Your task to perform on an android device: clear history in the chrome app Image 0: 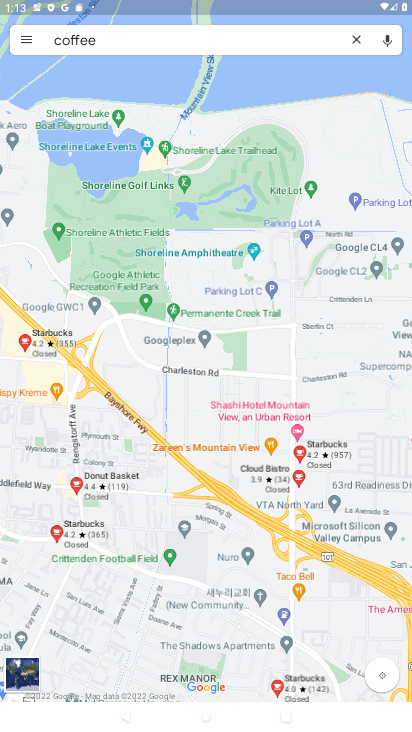
Step 0: click (265, 100)
Your task to perform on an android device: clear history in the chrome app Image 1: 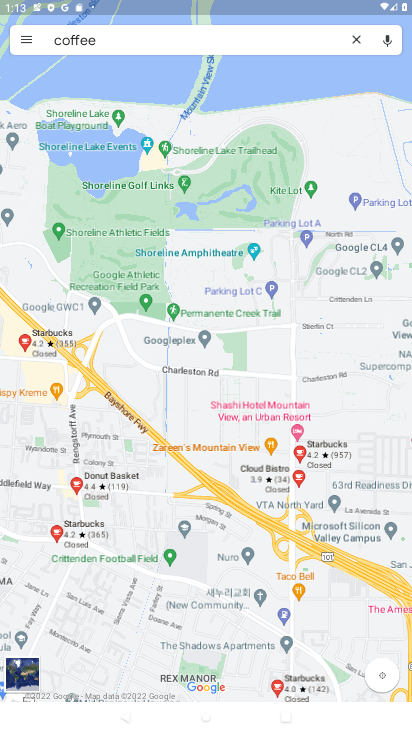
Step 1: press home button
Your task to perform on an android device: clear history in the chrome app Image 2: 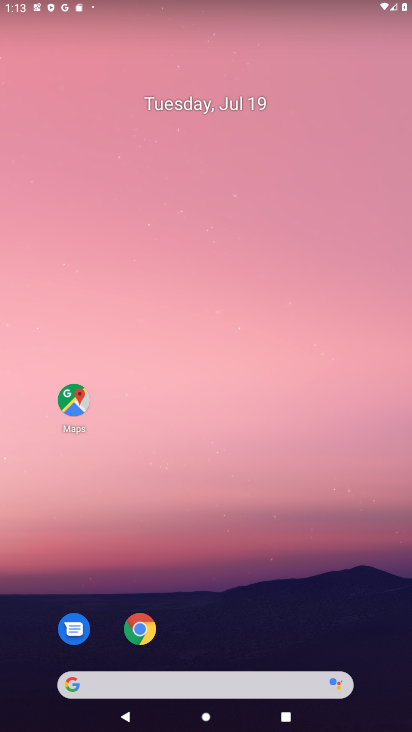
Step 2: drag from (247, 657) to (267, 125)
Your task to perform on an android device: clear history in the chrome app Image 3: 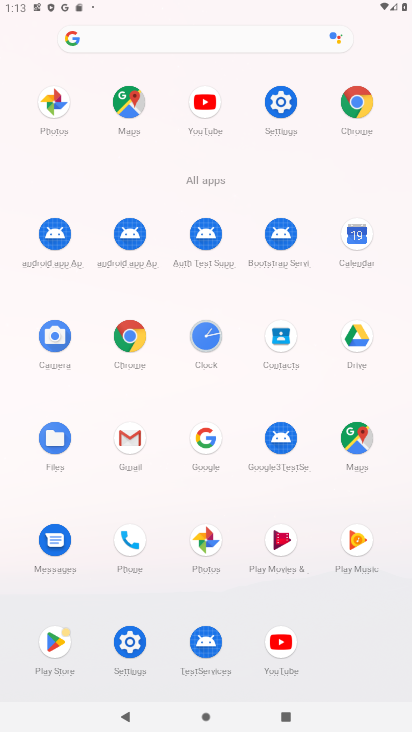
Step 3: click (126, 333)
Your task to perform on an android device: clear history in the chrome app Image 4: 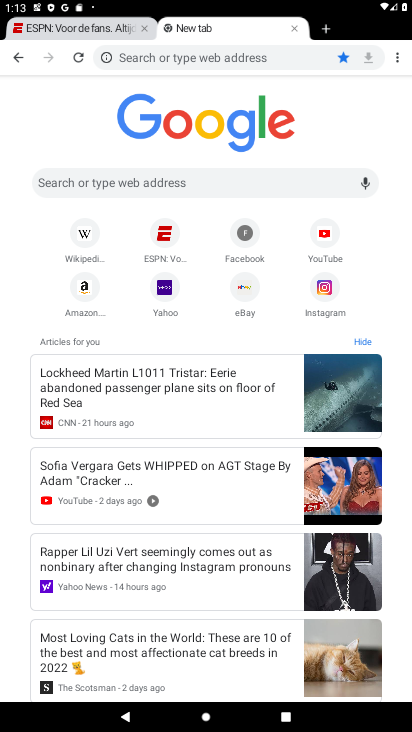
Step 4: click (393, 59)
Your task to perform on an android device: clear history in the chrome app Image 5: 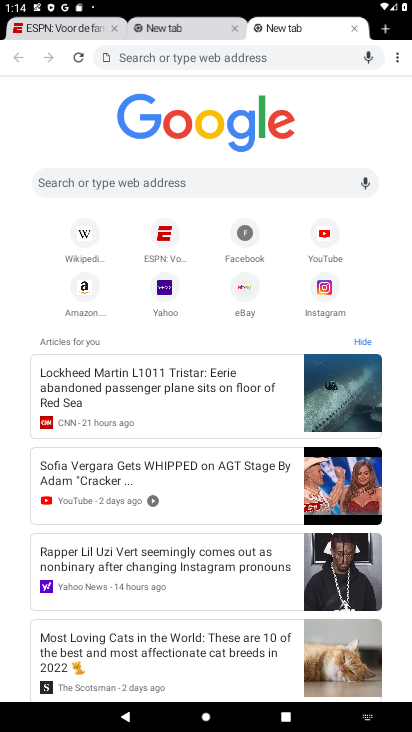
Step 5: click (402, 52)
Your task to perform on an android device: clear history in the chrome app Image 6: 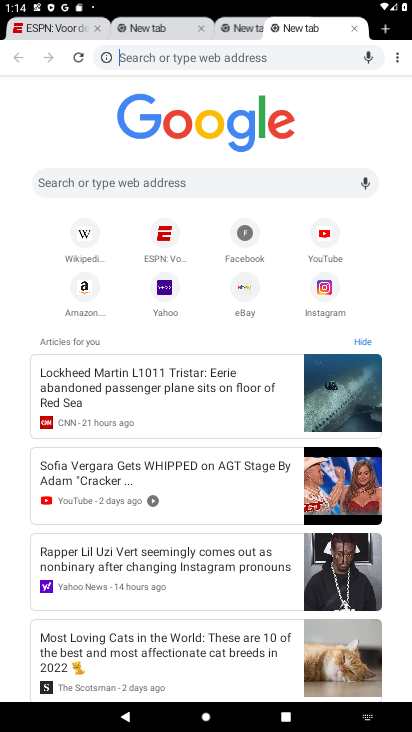
Step 6: click (396, 61)
Your task to perform on an android device: clear history in the chrome app Image 7: 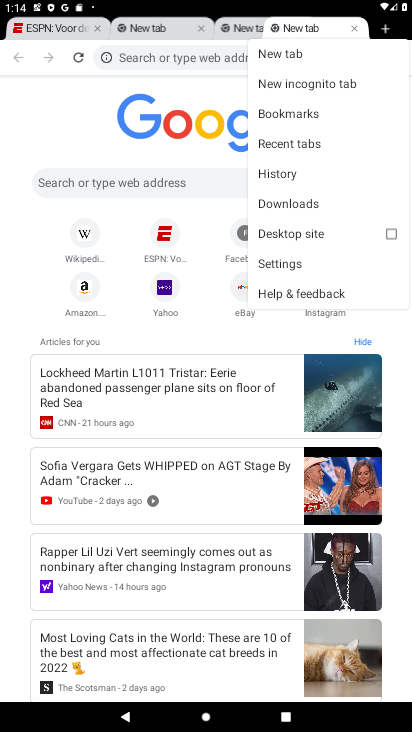
Step 7: click (281, 175)
Your task to perform on an android device: clear history in the chrome app Image 8: 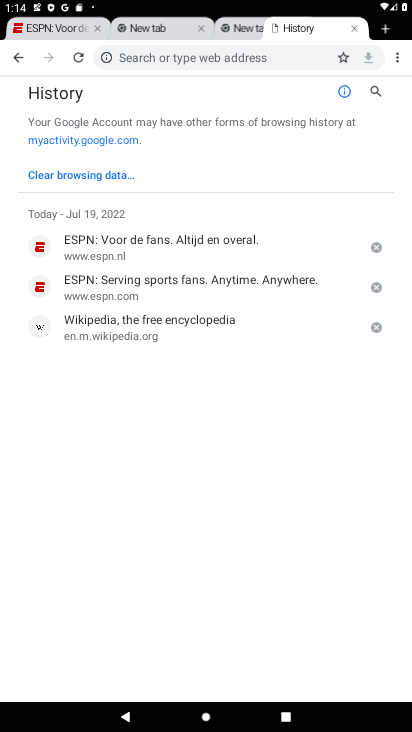
Step 8: click (71, 164)
Your task to perform on an android device: clear history in the chrome app Image 9: 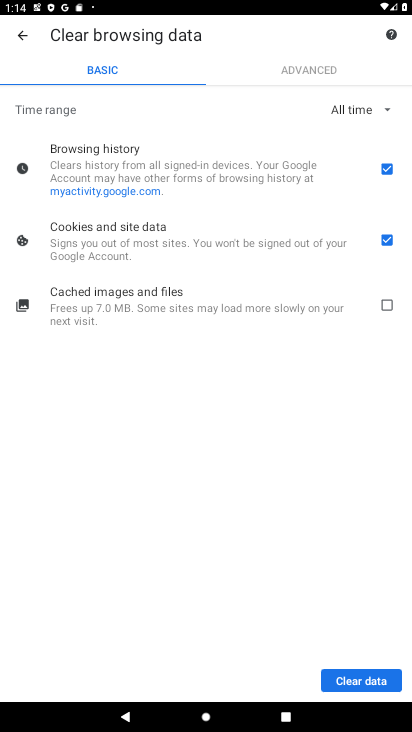
Step 9: click (384, 309)
Your task to perform on an android device: clear history in the chrome app Image 10: 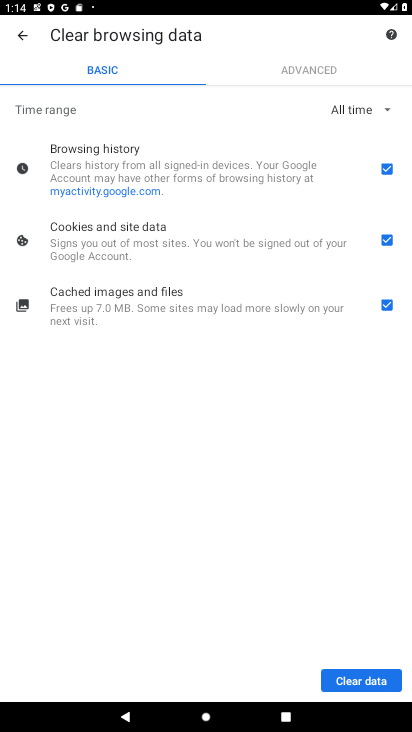
Step 10: click (354, 689)
Your task to perform on an android device: clear history in the chrome app Image 11: 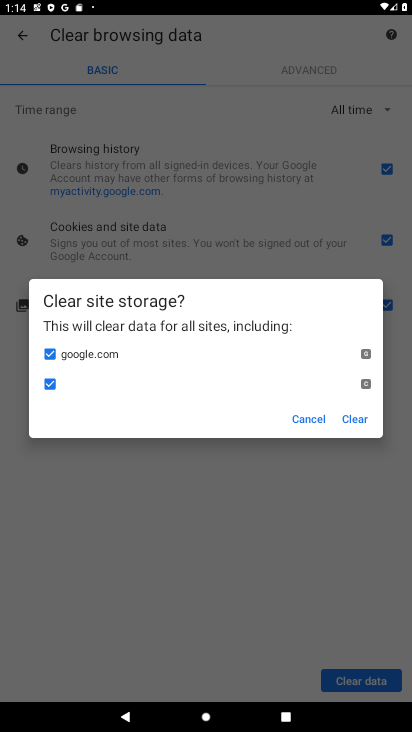
Step 11: click (349, 415)
Your task to perform on an android device: clear history in the chrome app Image 12: 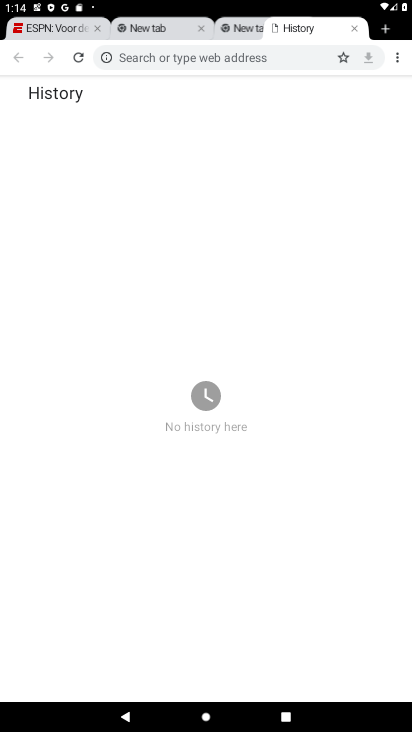
Step 12: task complete